Your task to perform on an android device: Is it going to rain this weekend? Image 0: 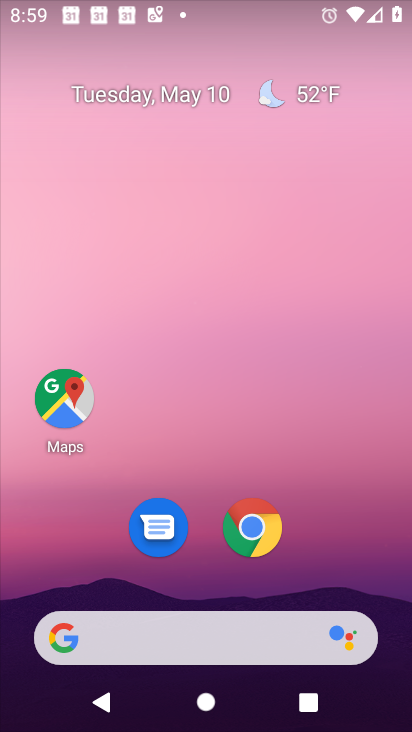
Step 0: click (260, 535)
Your task to perform on an android device: Is it going to rain this weekend? Image 1: 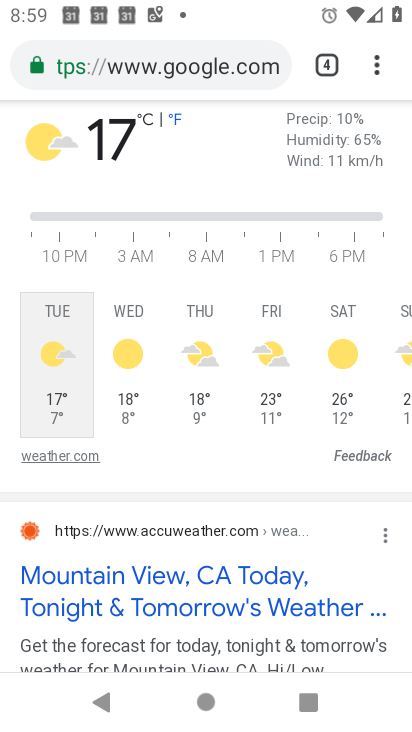
Step 1: click (324, 64)
Your task to perform on an android device: Is it going to rain this weekend? Image 2: 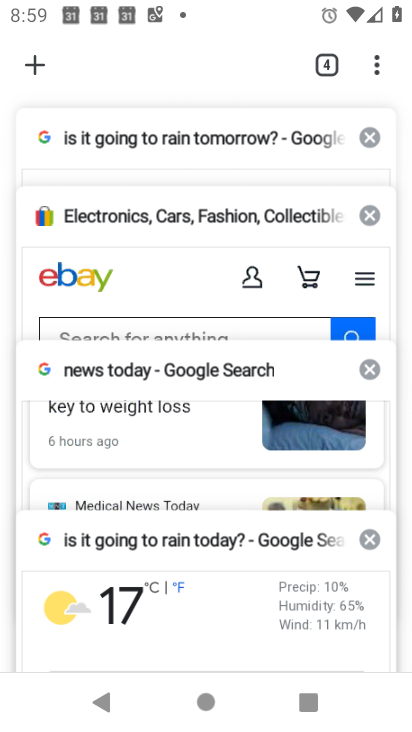
Step 2: click (34, 61)
Your task to perform on an android device: Is it going to rain this weekend? Image 3: 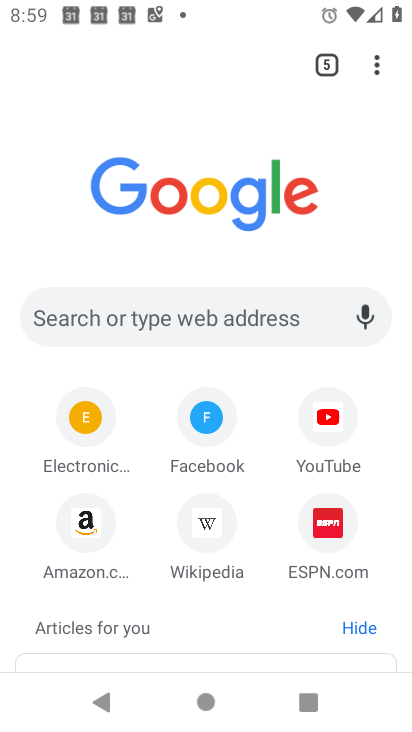
Step 3: click (105, 315)
Your task to perform on an android device: Is it going to rain this weekend? Image 4: 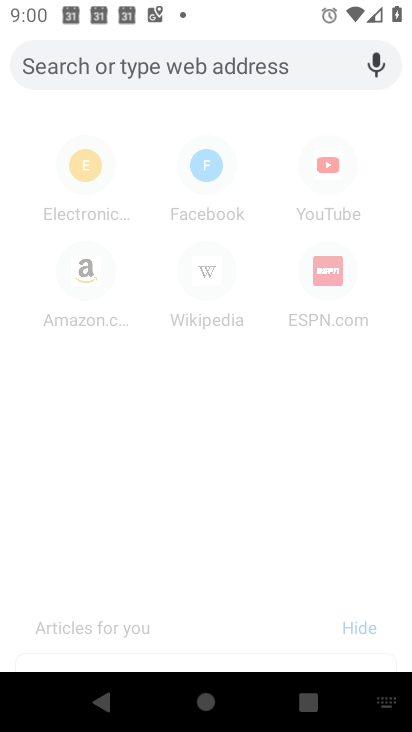
Step 4: type "is i going to rain this weekend?"
Your task to perform on an android device: Is it going to rain this weekend? Image 5: 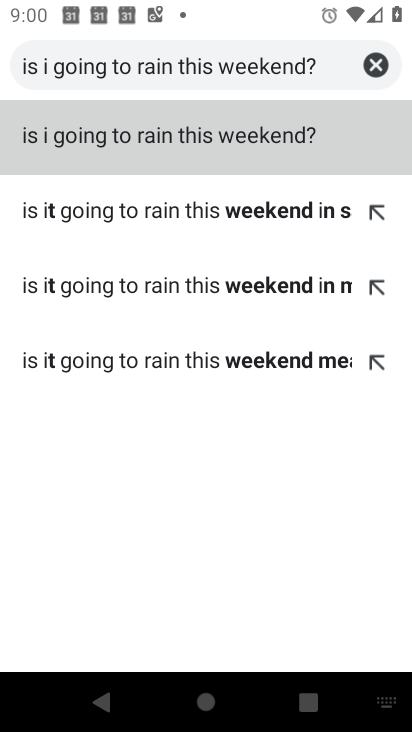
Step 5: click (52, 63)
Your task to perform on an android device: Is it going to rain this weekend? Image 6: 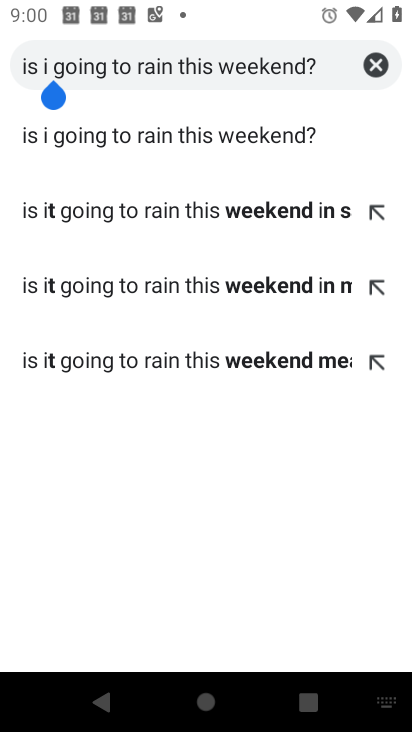
Step 6: click (47, 67)
Your task to perform on an android device: Is it going to rain this weekend? Image 7: 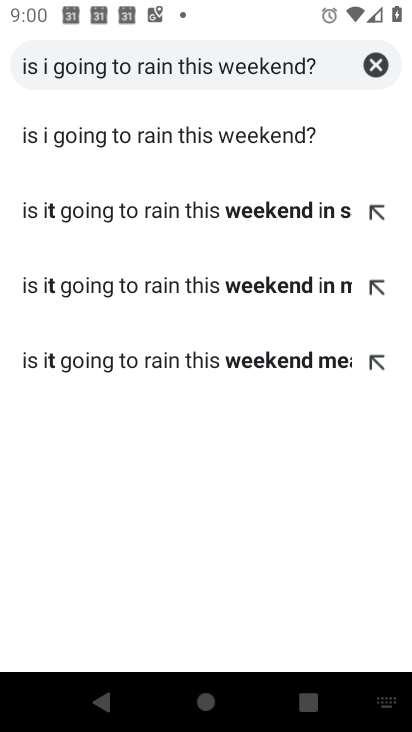
Step 7: type "t"
Your task to perform on an android device: Is it going to rain this weekend? Image 8: 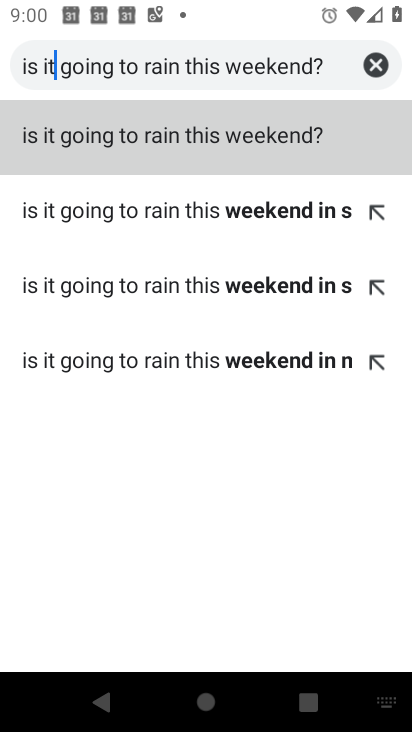
Step 8: click (107, 140)
Your task to perform on an android device: Is it going to rain this weekend? Image 9: 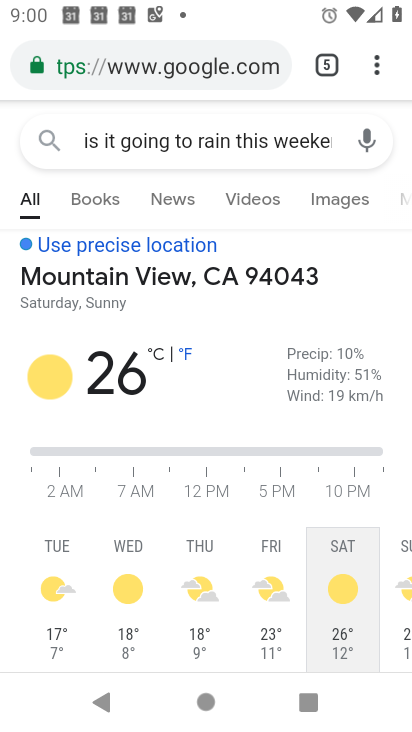
Step 9: task complete